Your task to perform on an android device: toggle data saver in the chrome app Image 0: 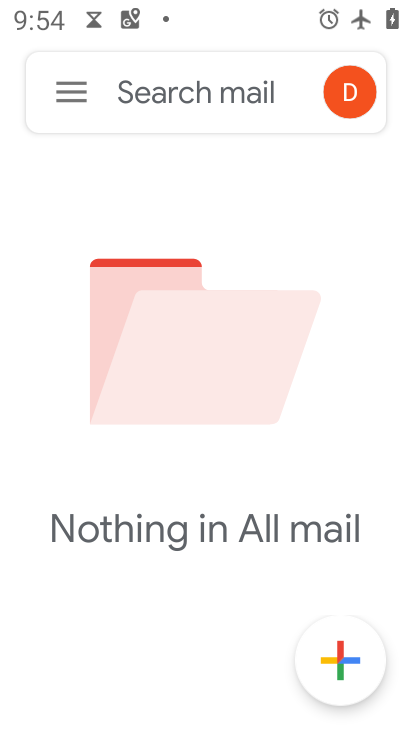
Step 0: press home button
Your task to perform on an android device: toggle data saver in the chrome app Image 1: 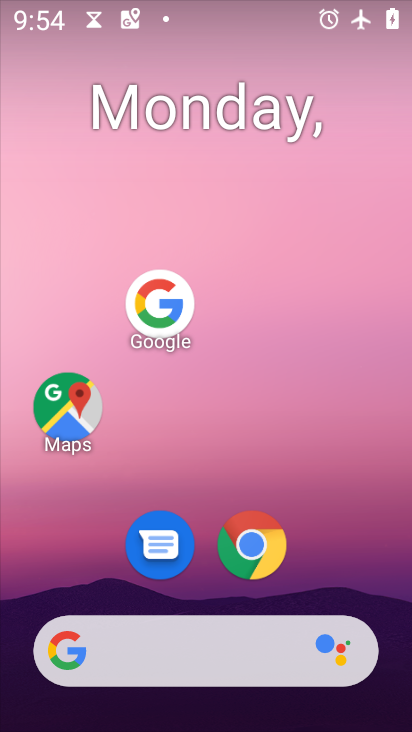
Step 1: click (243, 555)
Your task to perform on an android device: toggle data saver in the chrome app Image 2: 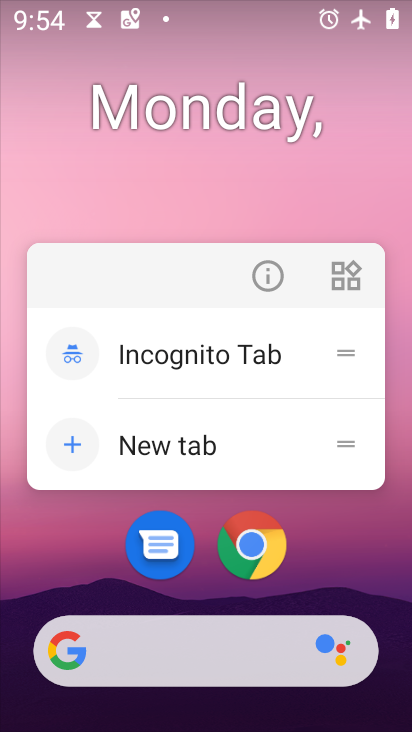
Step 2: click (251, 549)
Your task to perform on an android device: toggle data saver in the chrome app Image 3: 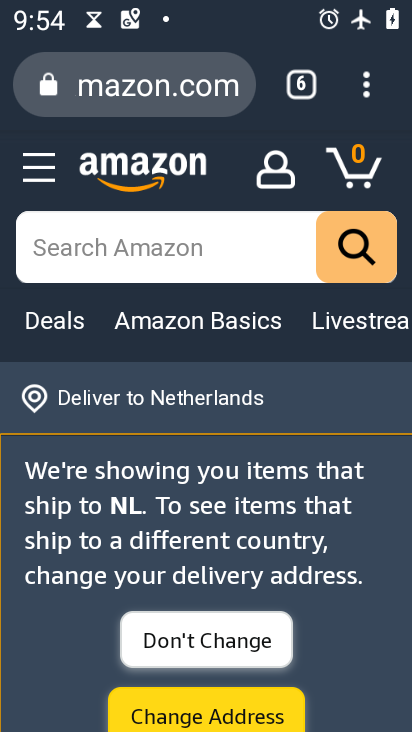
Step 3: drag from (370, 92) to (153, 601)
Your task to perform on an android device: toggle data saver in the chrome app Image 4: 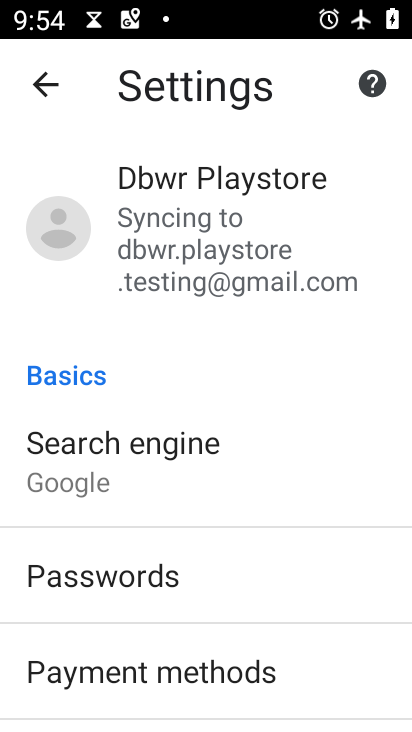
Step 4: drag from (237, 660) to (377, 314)
Your task to perform on an android device: toggle data saver in the chrome app Image 5: 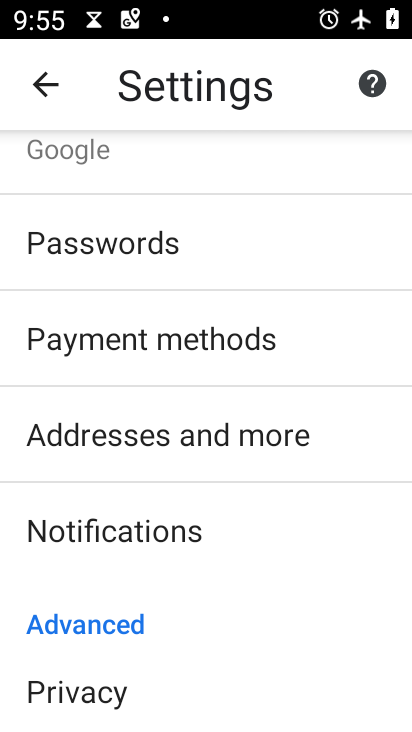
Step 5: drag from (228, 626) to (309, 194)
Your task to perform on an android device: toggle data saver in the chrome app Image 6: 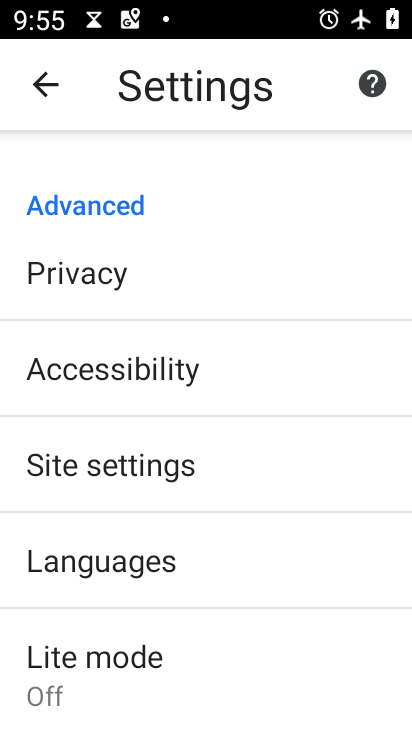
Step 6: click (112, 673)
Your task to perform on an android device: toggle data saver in the chrome app Image 7: 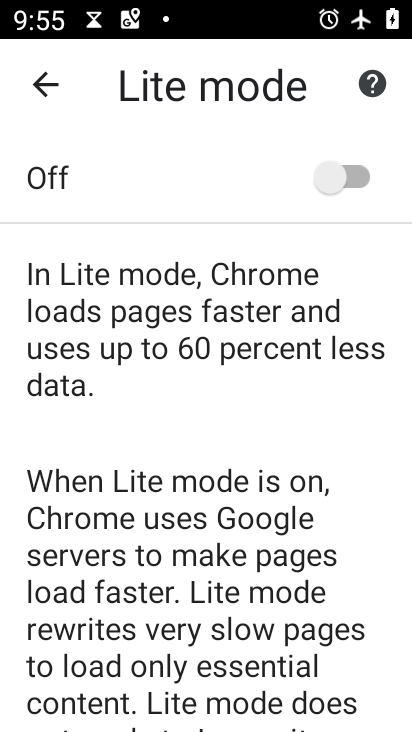
Step 7: click (359, 173)
Your task to perform on an android device: toggle data saver in the chrome app Image 8: 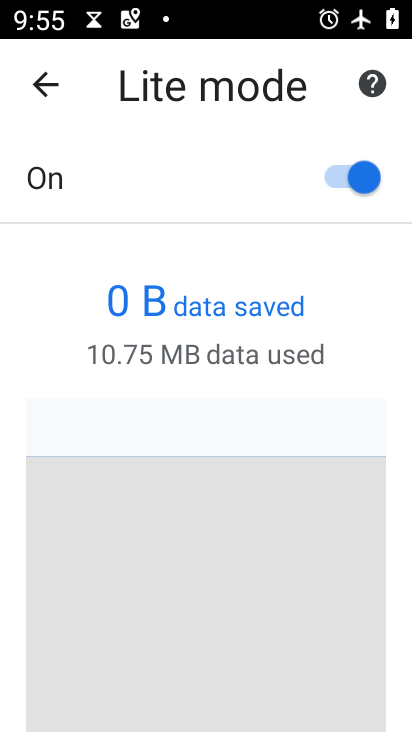
Step 8: task complete